Your task to perform on an android device: Go to eBay Image 0: 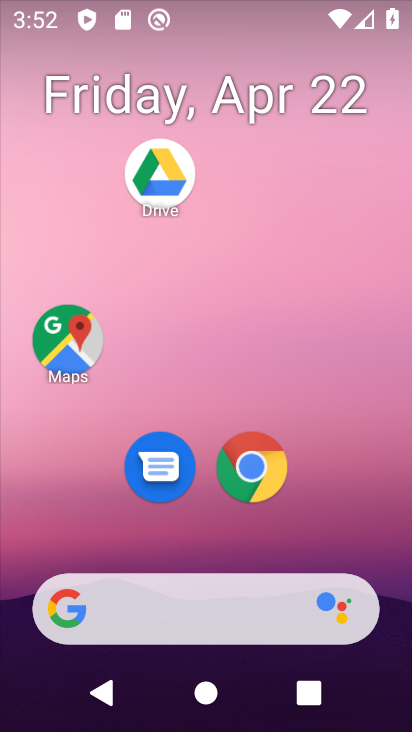
Step 0: click (251, 458)
Your task to perform on an android device: Go to eBay Image 1: 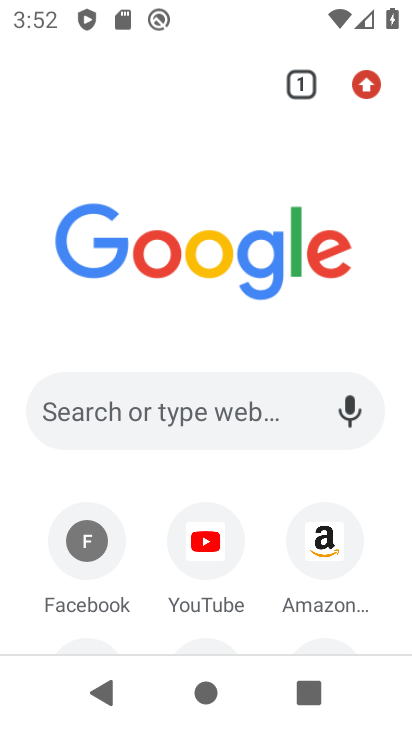
Step 1: click (132, 414)
Your task to perform on an android device: Go to eBay Image 2: 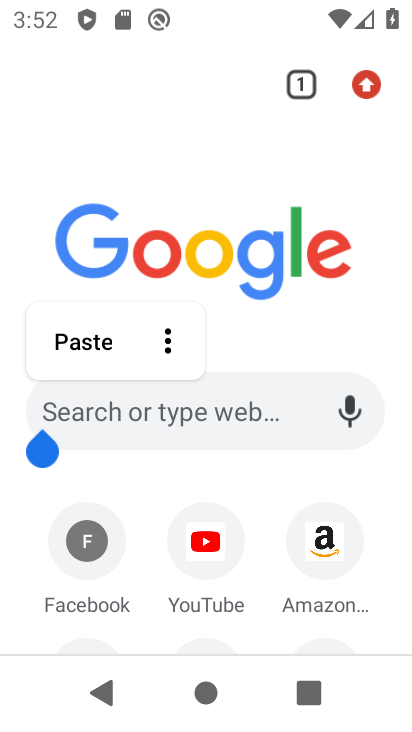
Step 2: click (129, 397)
Your task to perform on an android device: Go to eBay Image 3: 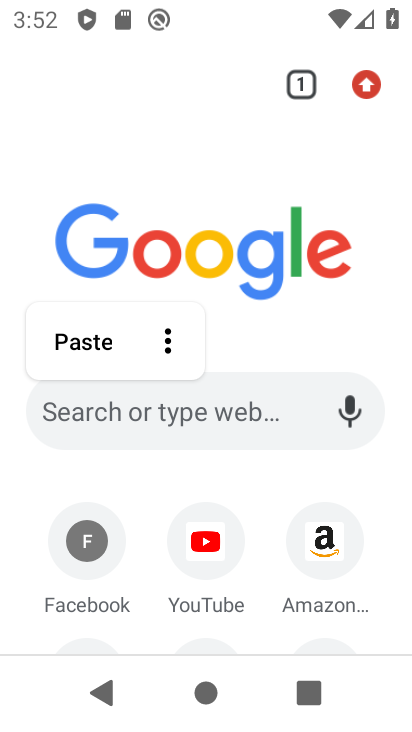
Step 3: click (111, 412)
Your task to perform on an android device: Go to eBay Image 4: 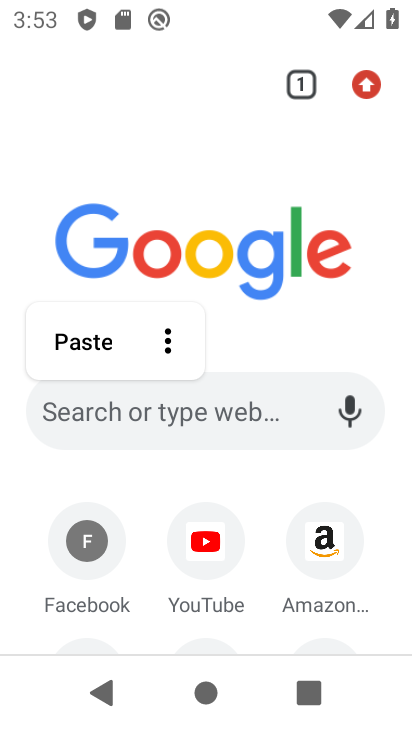
Step 4: type "ebay"
Your task to perform on an android device: Go to eBay Image 5: 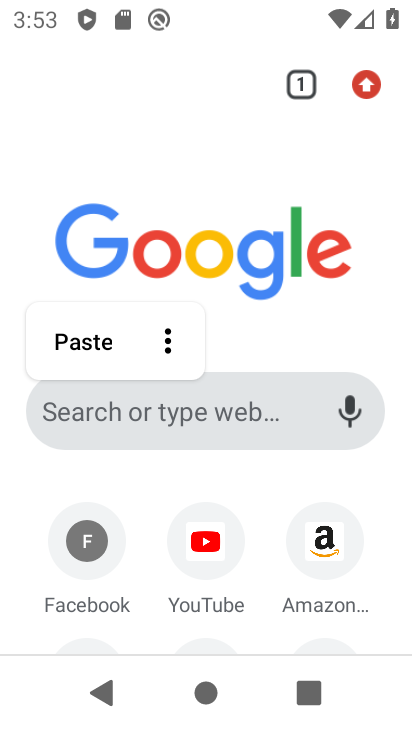
Step 5: click (110, 412)
Your task to perform on an android device: Go to eBay Image 6: 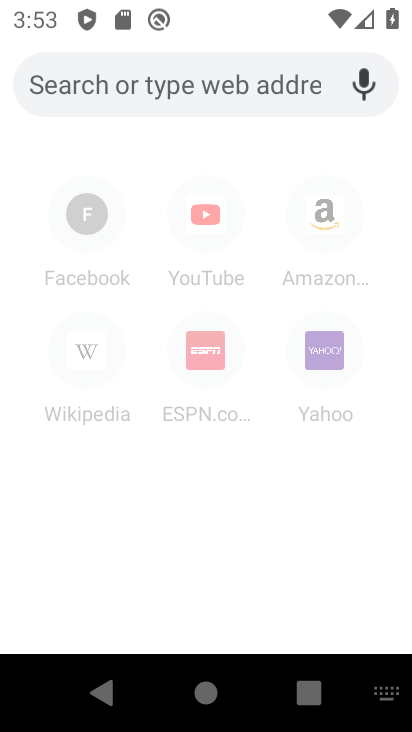
Step 6: type "ebay"
Your task to perform on an android device: Go to eBay Image 7: 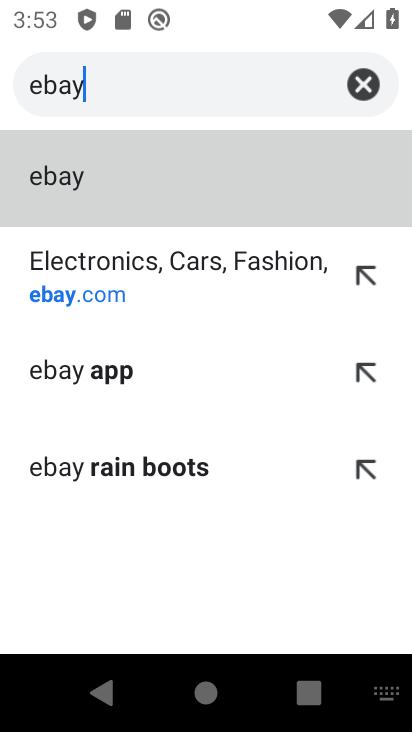
Step 7: click (144, 285)
Your task to perform on an android device: Go to eBay Image 8: 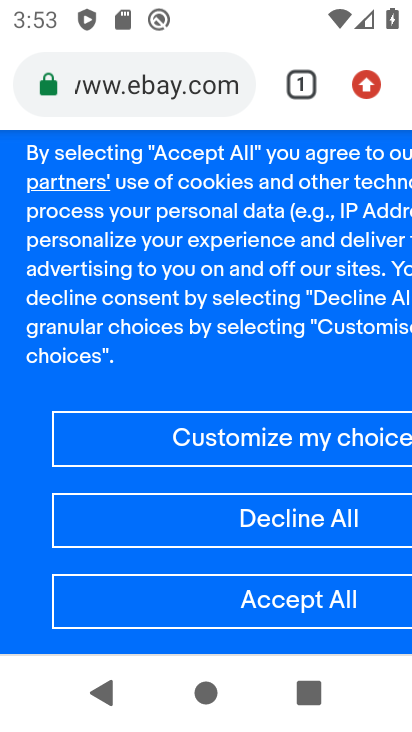
Step 8: click (213, 592)
Your task to perform on an android device: Go to eBay Image 9: 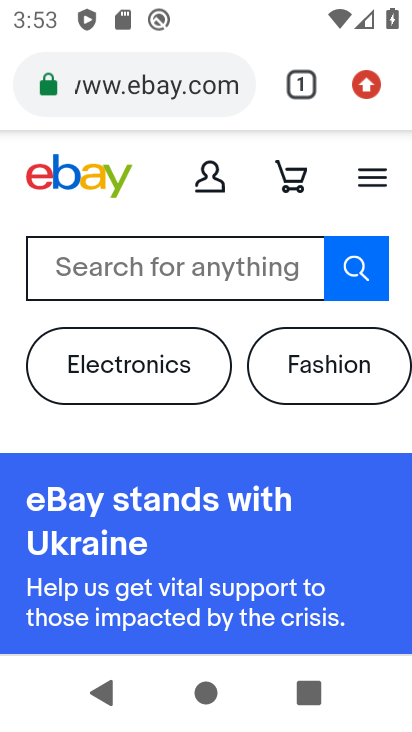
Step 9: task complete